Your task to perform on an android device: Open the calendar and show me this week's events Image 0: 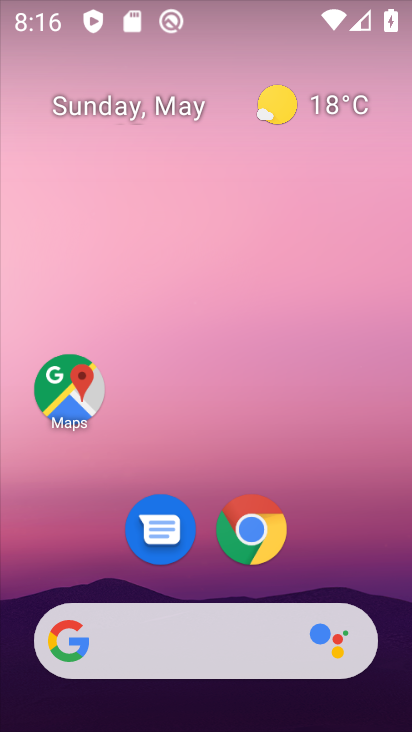
Step 0: drag from (379, 554) to (301, 25)
Your task to perform on an android device: Open the calendar and show me this week's events Image 1: 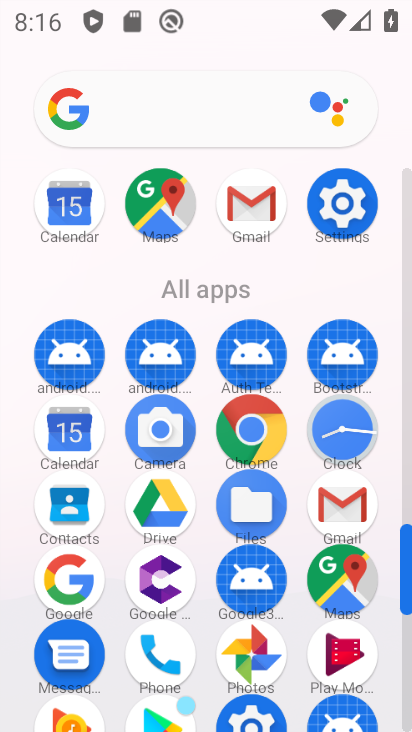
Step 1: click (76, 206)
Your task to perform on an android device: Open the calendar and show me this week's events Image 2: 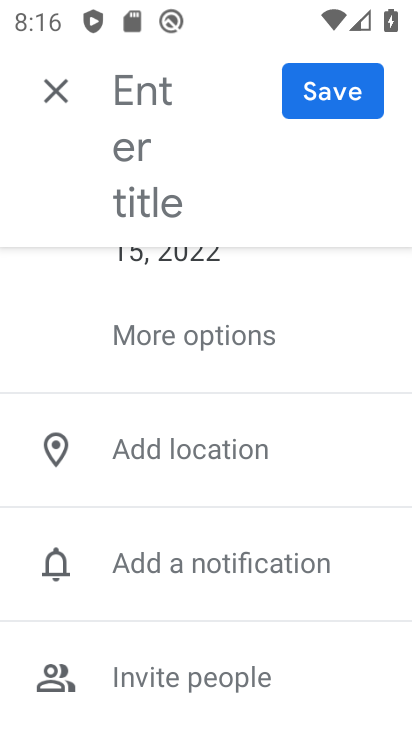
Step 2: click (45, 95)
Your task to perform on an android device: Open the calendar and show me this week's events Image 3: 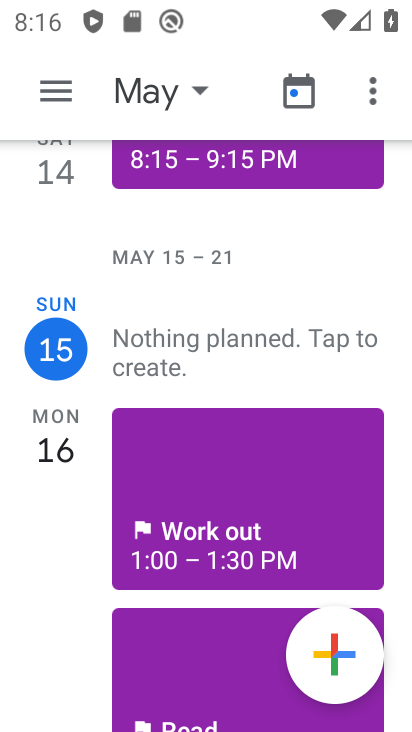
Step 3: click (54, 86)
Your task to perform on an android device: Open the calendar and show me this week's events Image 4: 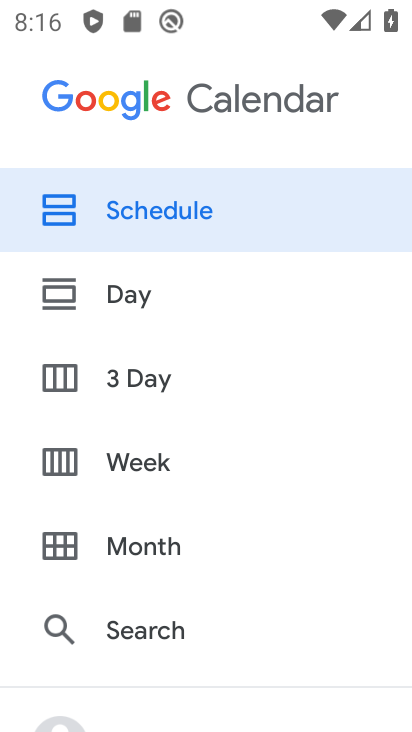
Step 4: drag from (201, 591) to (191, 196)
Your task to perform on an android device: Open the calendar and show me this week's events Image 5: 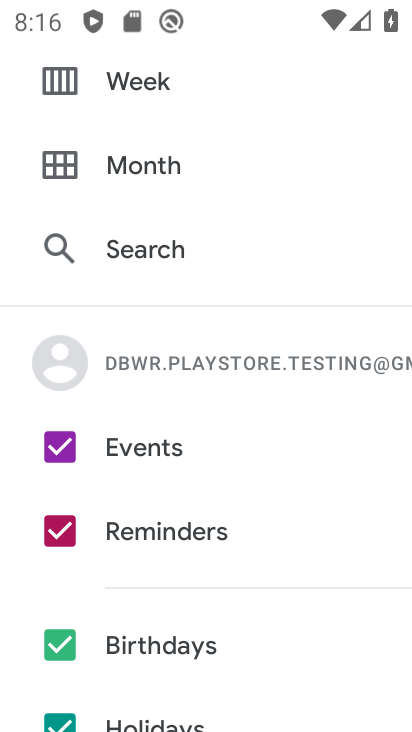
Step 5: drag from (63, 534) to (133, 372)
Your task to perform on an android device: Open the calendar and show me this week's events Image 6: 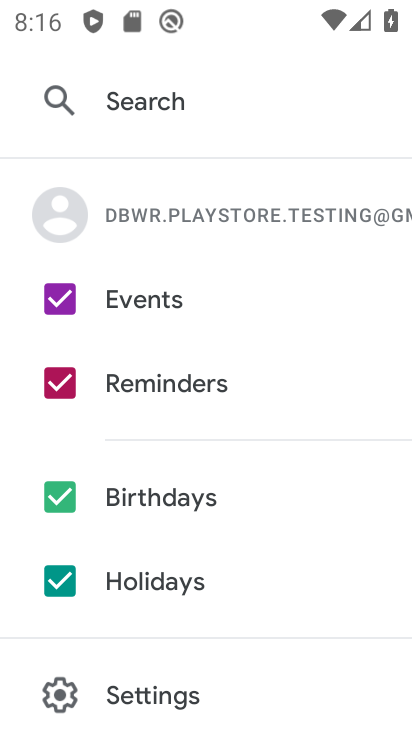
Step 6: click (47, 483)
Your task to perform on an android device: Open the calendar and show me this week's events Image 7: 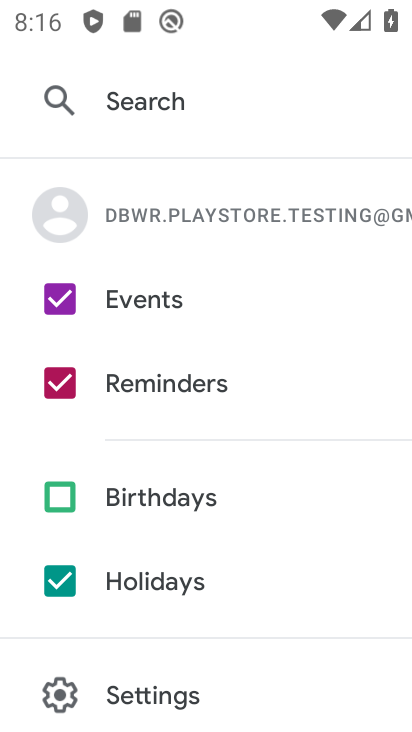
Step 7: click (74, 588)
Your task to perform on an android device: Open the calendar and show me this week's events Image 8: 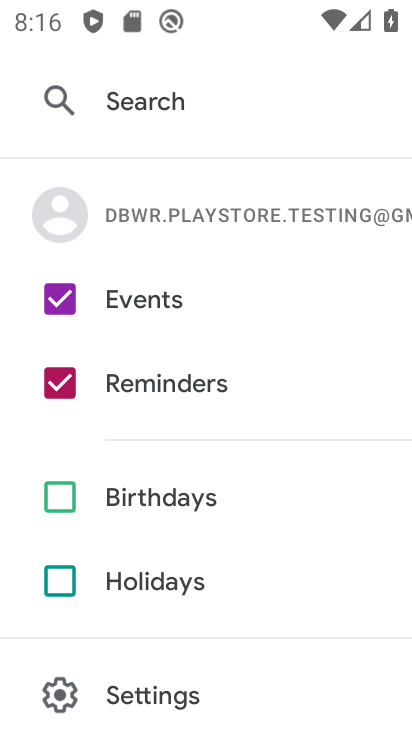
Step 8: click (61, 392)
Your task to perform on an android device: Open the calendar and show me this week's events Image 9: 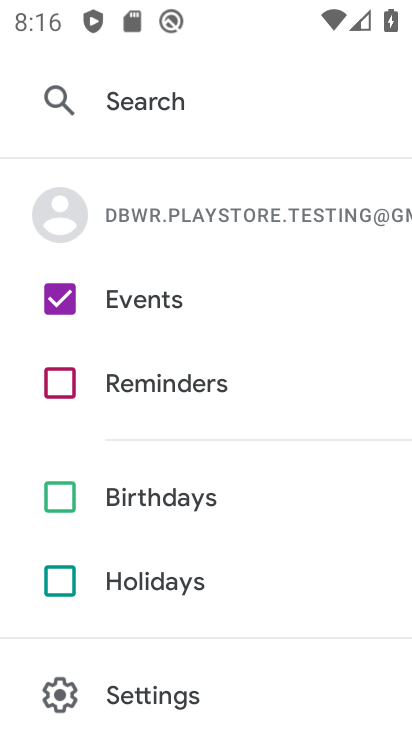
Step 9: drag from (150, 350) to (142, 697)
Your task to perform on an android device: Open the calendar and show me this week's events Image 10: 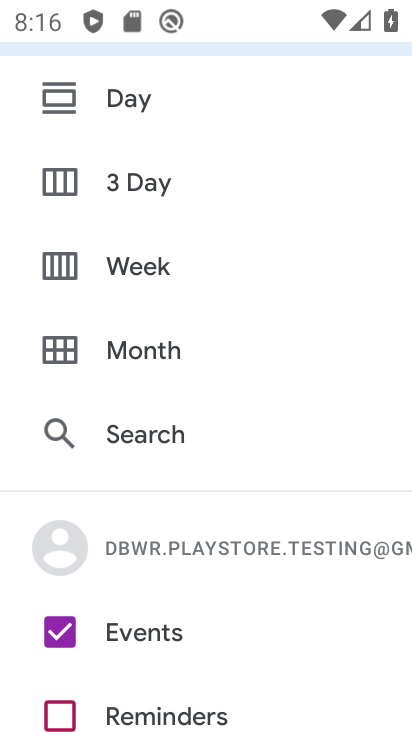
Step 10: click (76, 279)
Your task to perform on an android device: Open the calendar and show me this week's events Image 11: 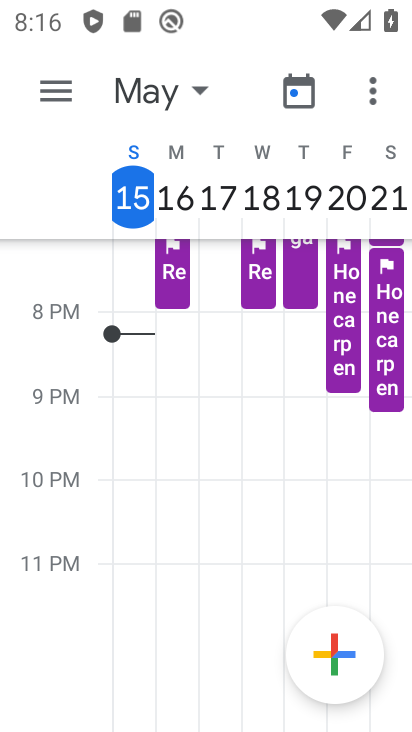
Step 11: task complete